Your task to perform on an android device: delete a single message in the gmail app Image 0: 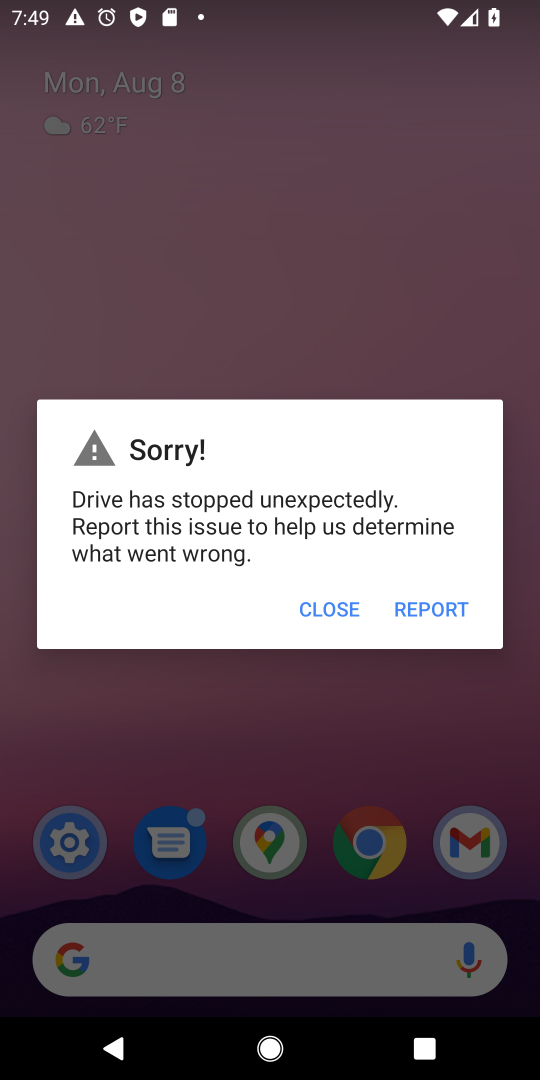
Step 0: press home button
Your task to perform on an android device: delete a single message in the gmail app Image 1: 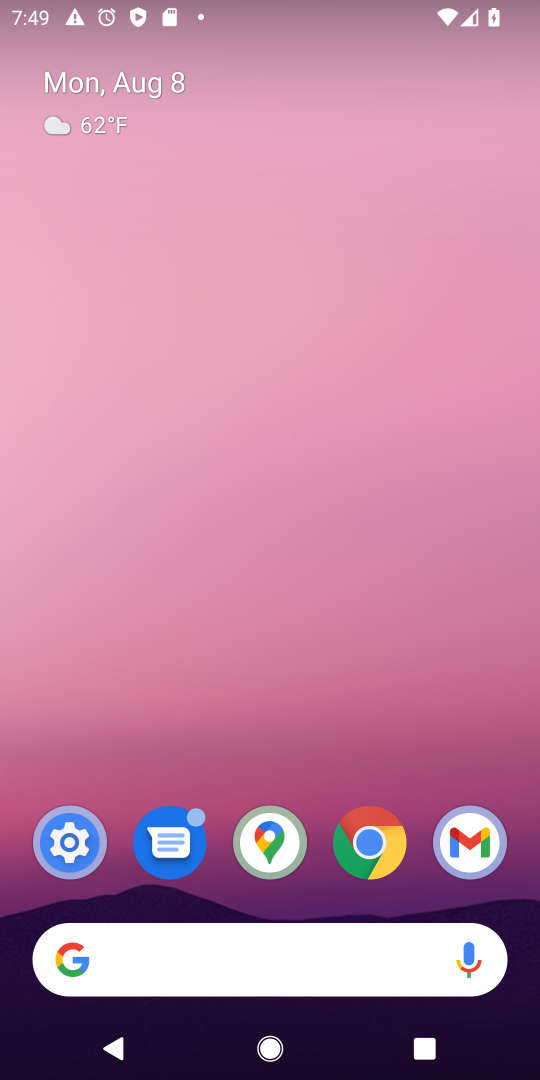
Step 1: click (474, 836)
Your task to perform on an android device: delete a single message in the gmail app Image 2: 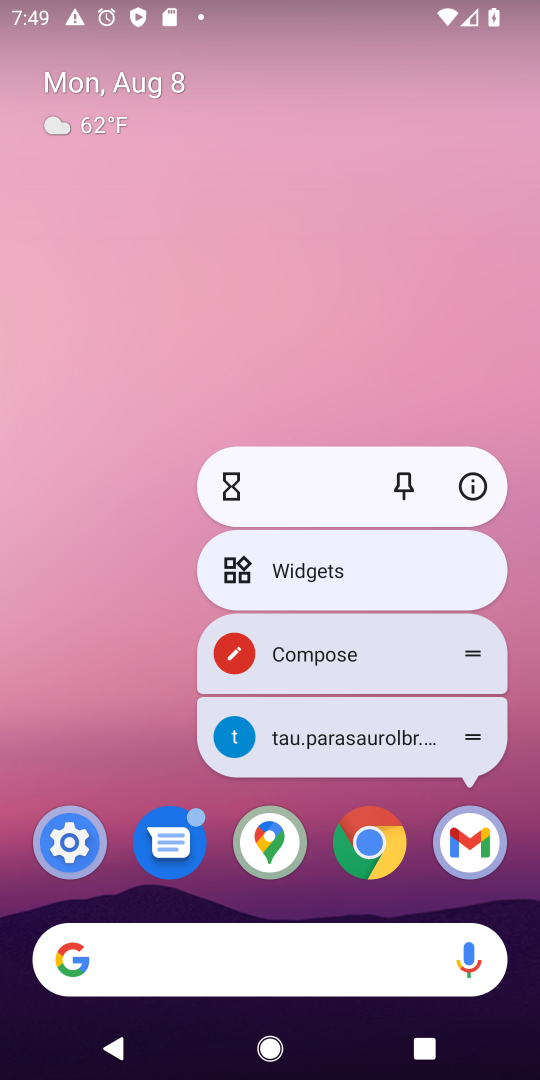
Step 2: click (480, 829)
Your task to perform on an android device: delete a single message in the gmail app Image 3: 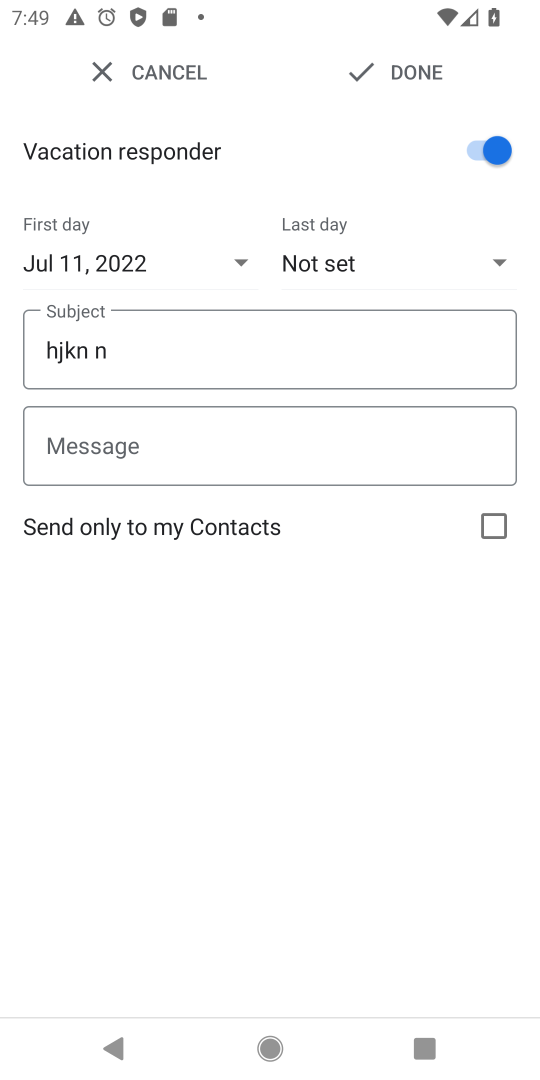
Step 3: click (451, 838)
Your task to perform on an android device: delete a single message in the gmail app Image 4: 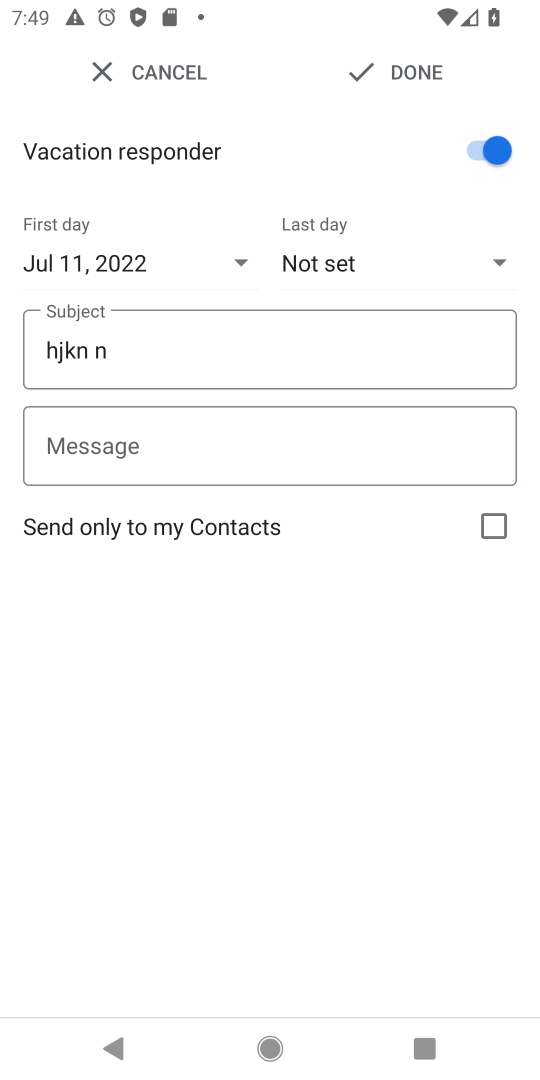
Step 4: task complete